Your task to perform on an android device: Open Chrome and go to settings Image 0: 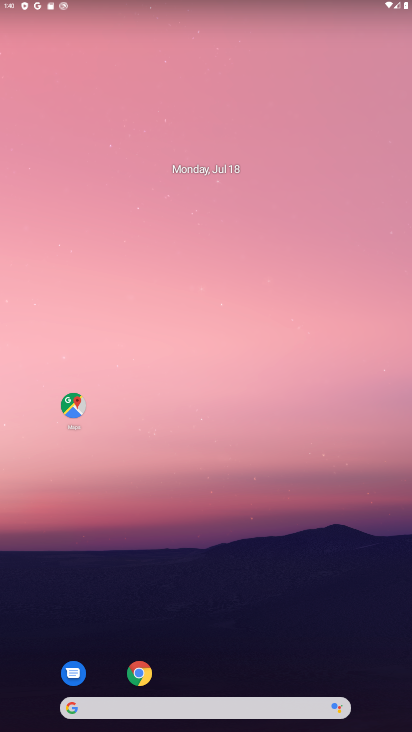
Step 0: click (139, 670)
Your task to perform on an android device: Open Chrome and go to settings Image 1: 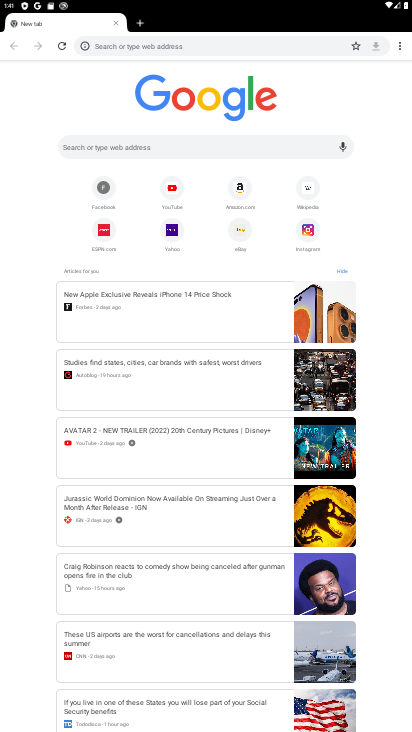
Step 1: click (401, 45)
Your task to perform on an android device: Open Chrome and go to settings Image 2: 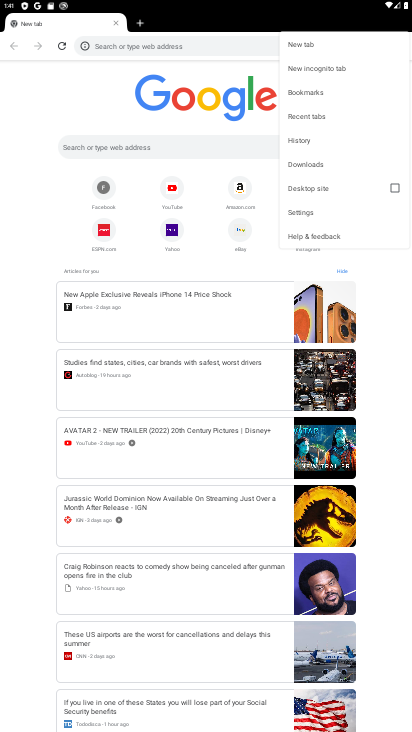
Step 2: click (314, 215)
Your task to perform on an android device: Open Chrome and go to settings Image 3: 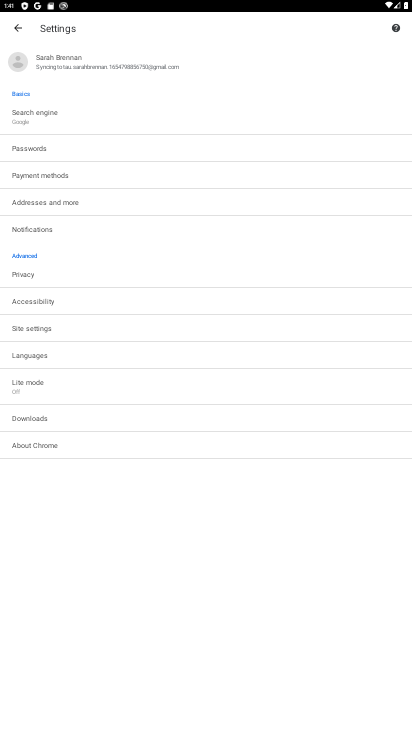
Step 3: task complete